Your task to perform on an android device: open chrome privacy settings Image 0: 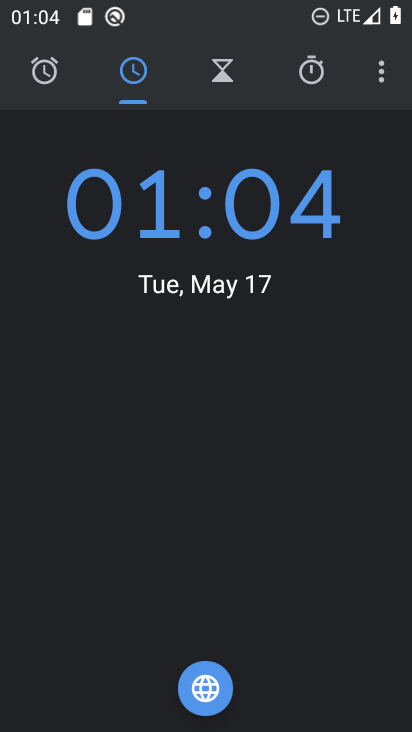
Step 0: press home button
Your task to perform on an android device: open chrome privacy settings Image 1: 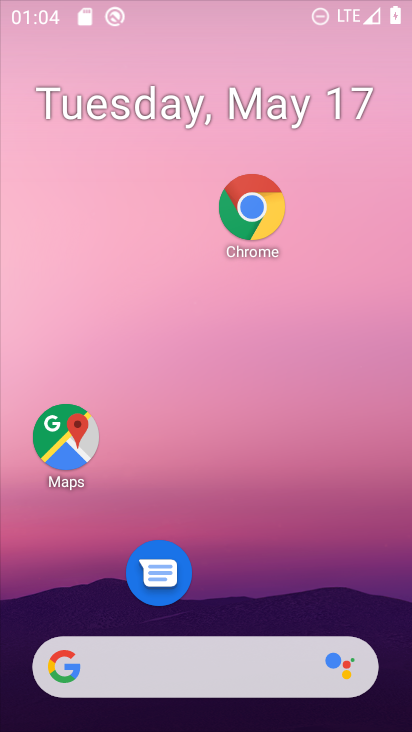
Step 1: drag from (224, 673) to (261, 70)
Your task to perform on an android device: open chrome privacy settings Image 2: 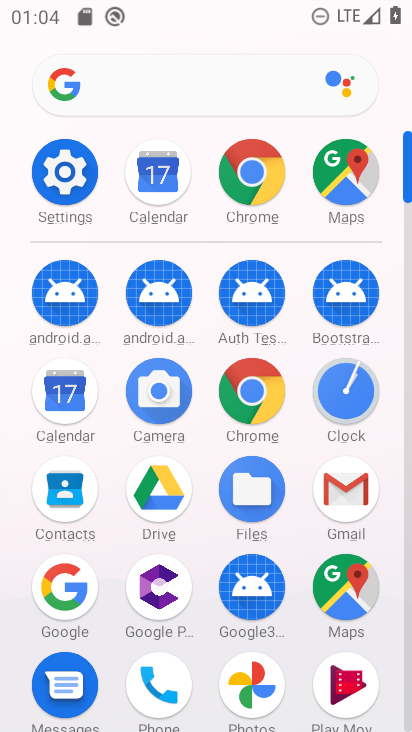
Step 2: click (66, 169)
Your task to perform on an android device: open chrome privacy settings Image 3: 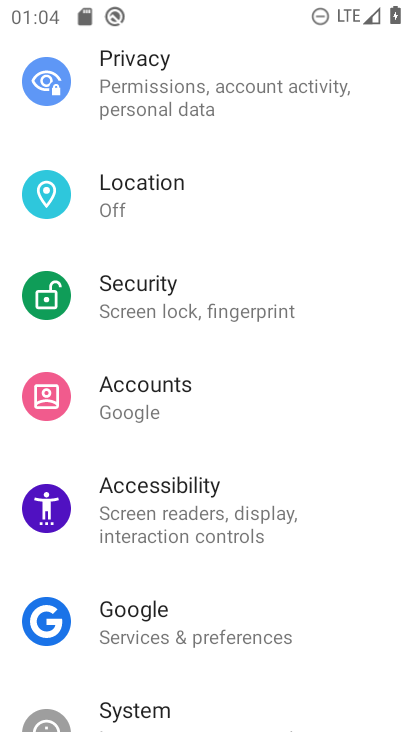
Step 3: press home button
Your task to perform on an android device: open chrome privacy settings Image 4: 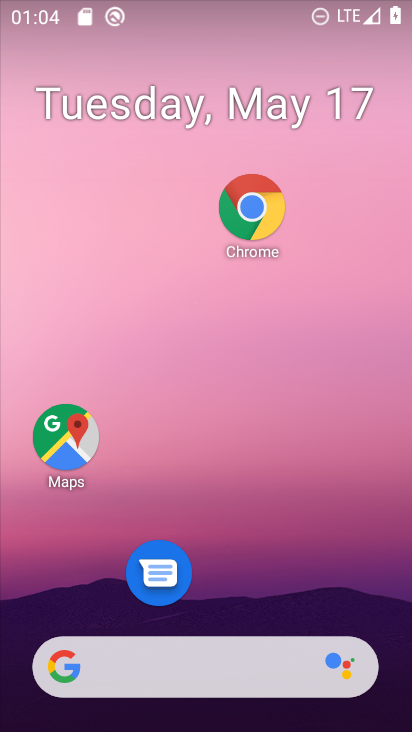
Step 4: drag from (329, 680) to (358, 4)
Your task to perform on an android device: open chrome privacy settings Image 5: 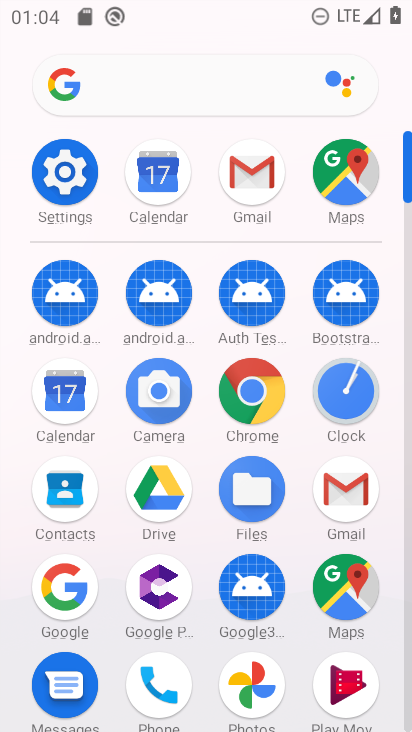
Step 5: click (261, 398)
Your task to perform on an android device: open chrome privacy settings Image 6: 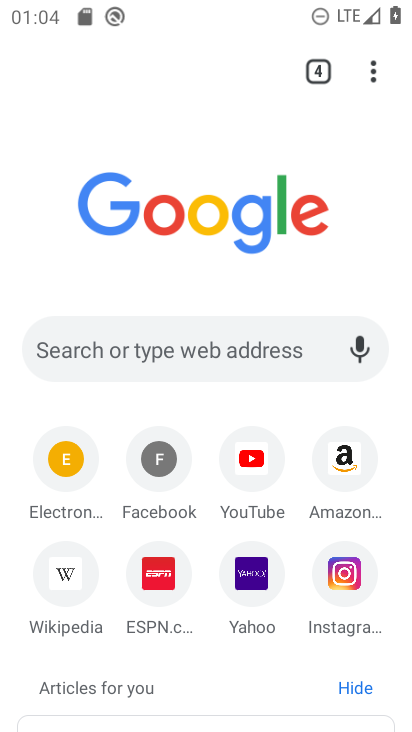
Step 6: click (374, 68)
Your task to perform on an android device: open chrome privacy settings Image 7: 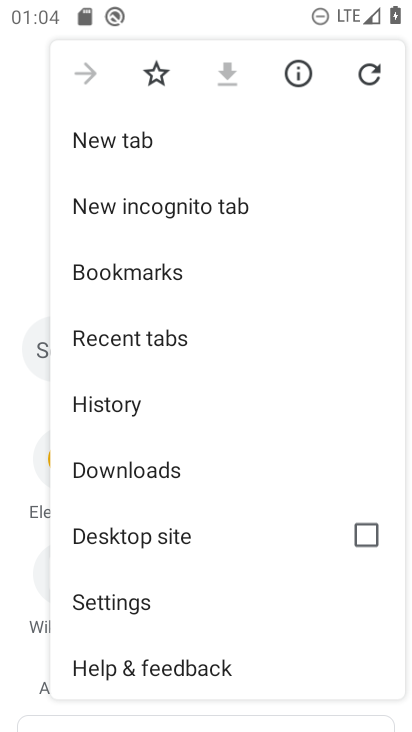
Step 7: drag from (235, 635) to (276, 194)
Your task to perform on an android device: open chrome privacy settings Image 8: 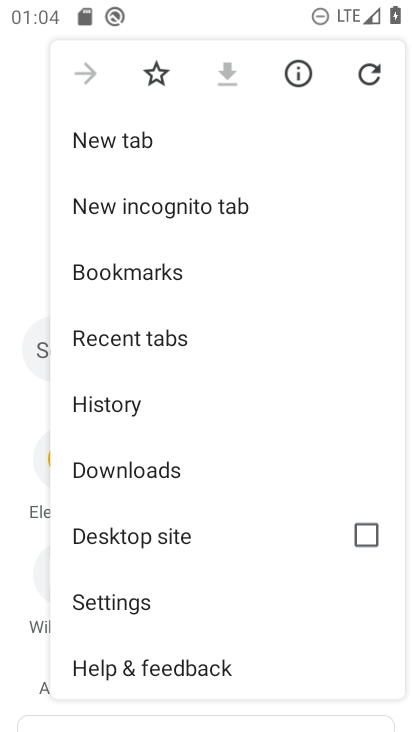
Step 8: click (136, 606)
Your task to perform on an android device: open chrome privacy settings Image 9: 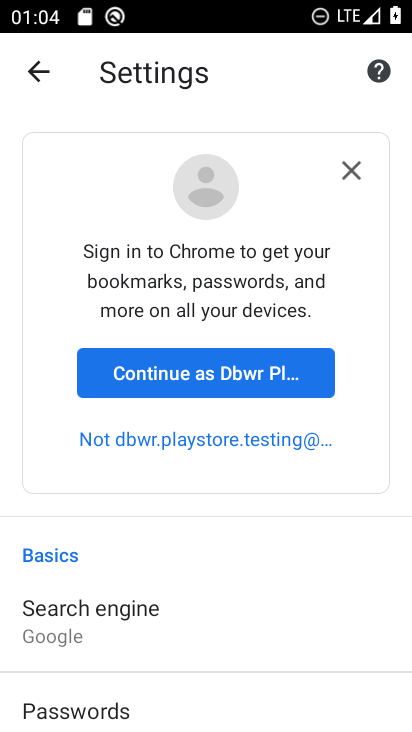
Step 9: drag from (136, 696) to (165, 72)
Your task to perform on an android device: open chrome privacy settings Image 10: 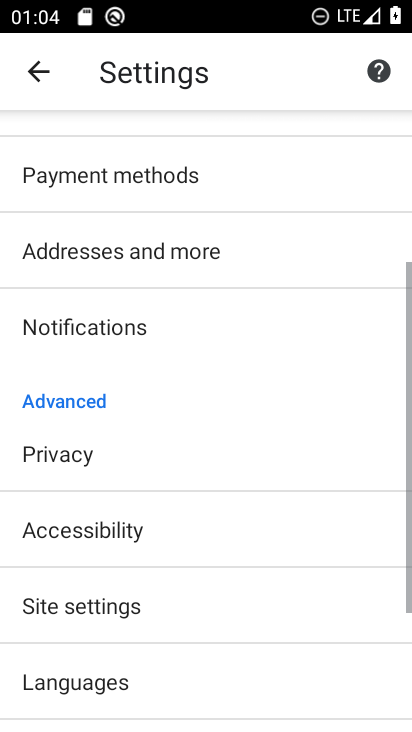
Step 10: drag from (241, 639) to (237, 151)
Your task to perform on an android device: open chrome privacy settings Image 11: 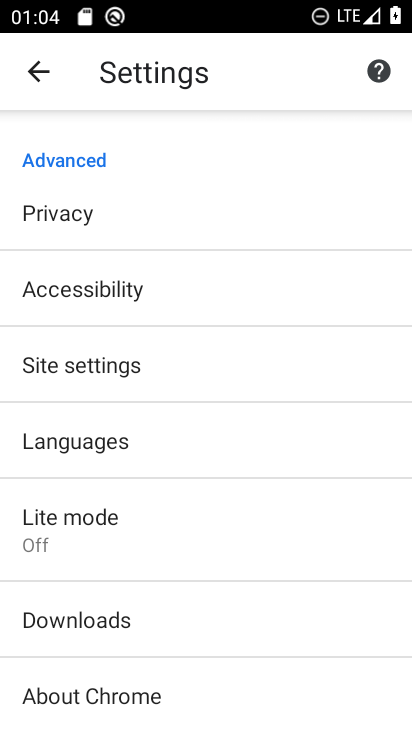
Step 11: click (89, 213)
Your task to perform on an android device: open chrome privacy settings Image 12: 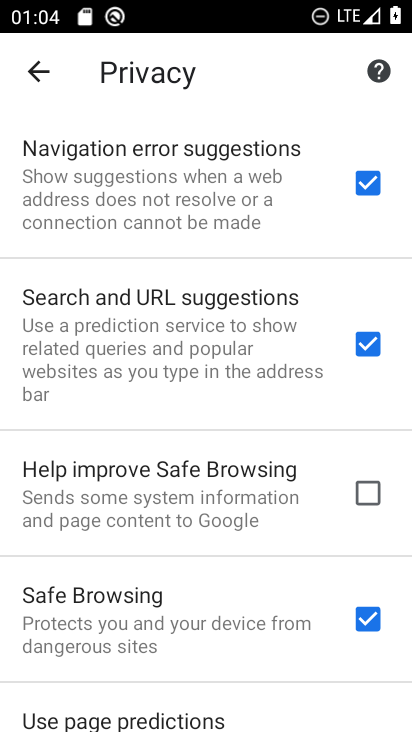
Step 12: task complete